Your task to perform on an android device: check google app version Image 0: 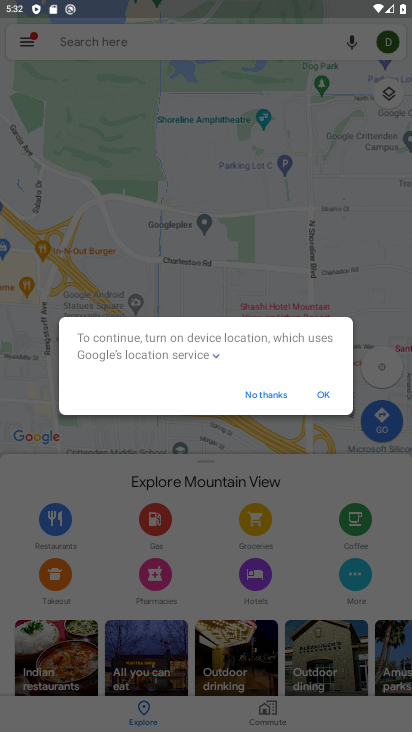
Step 0: press home button
Your task to perform on an android device: check google app version Image 1: 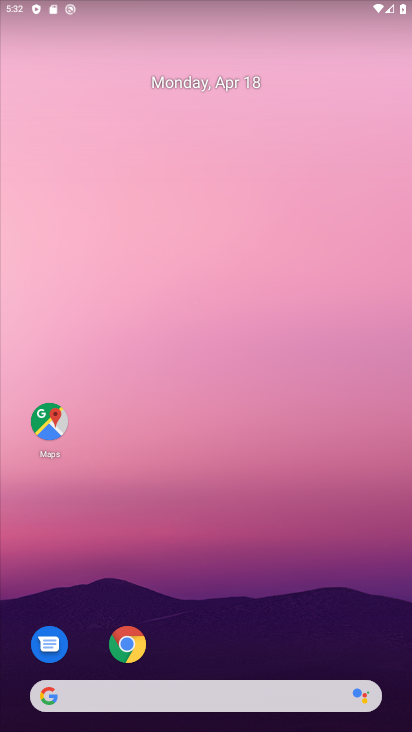
Step 1: drag from (205, 651) to (231, 76)
Your task to perform on an android device: check google app version Image 2: 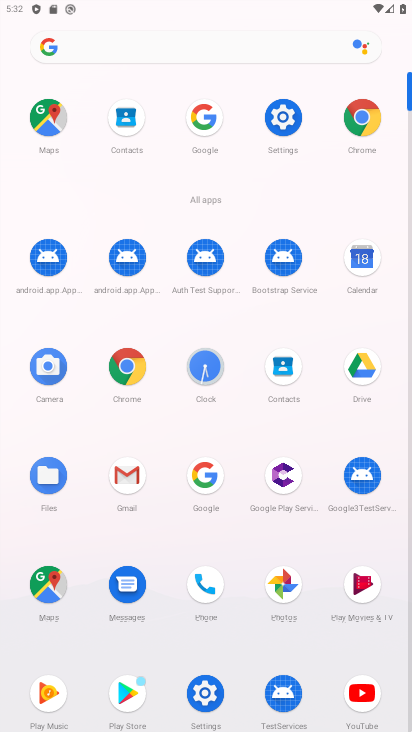
Step 2: click (202, 117)
Your task to perform on an android device: check google app version Image 3: 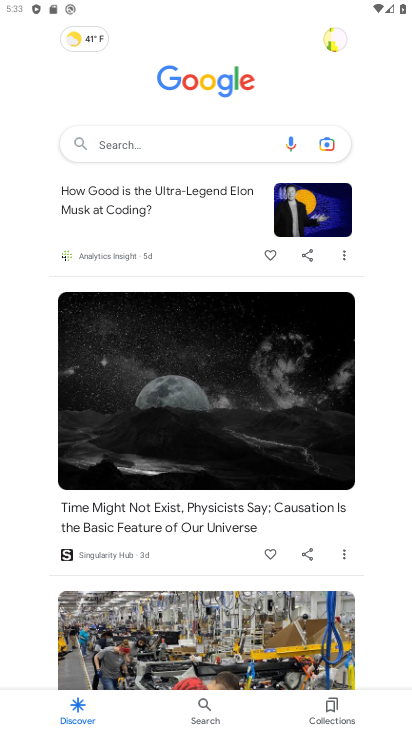
Step 3: click (330, 37)
Your task to perform on an android device: check google app version Image 4: 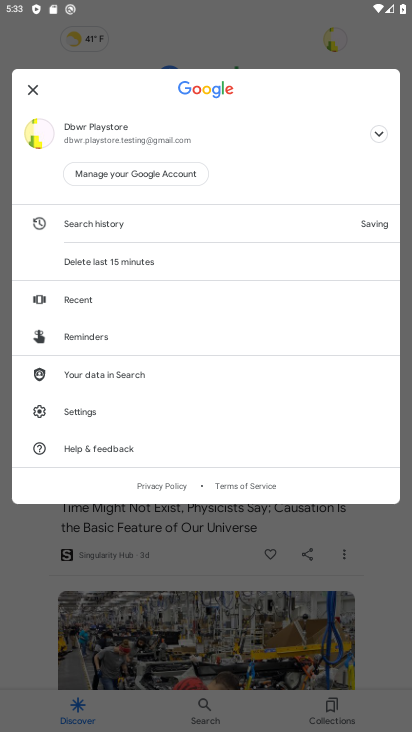
Step 4: click (104, 410)
Your task to perform on an android device: check google app version Image 5: 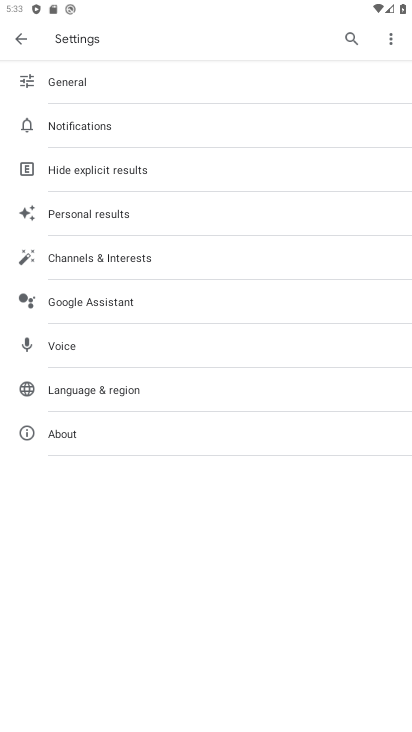
Step 5: click (93, 434)
Your task to perform on an android device: check google app version Image 6: 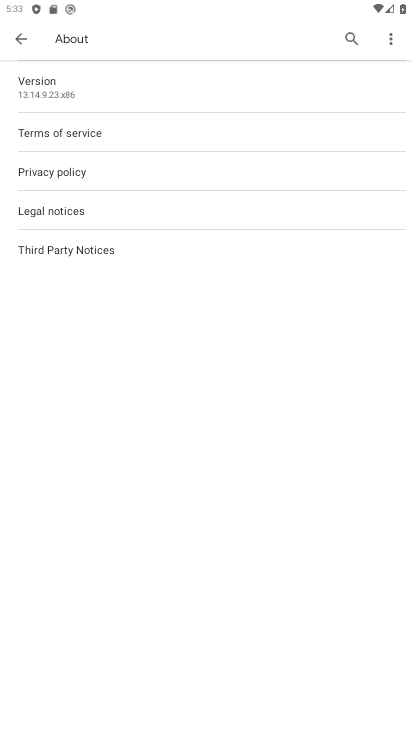
Step 6: click (76, 90)
Your task to perform on an android device: check google app version Image 7: 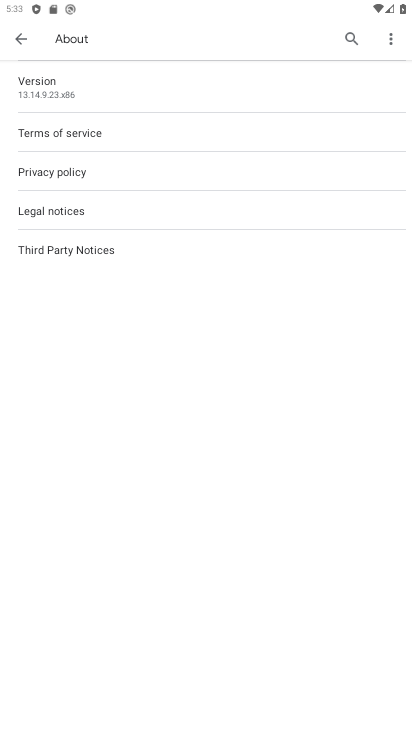
Step 7: task complete